Your task to perform on an android device: toggle data saver in the chrome app Image 0: 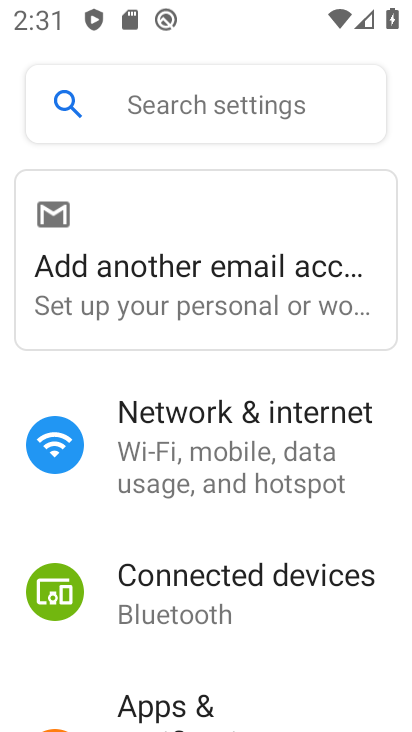
Step 0: press home button
Your task to perform on an android device: toggle data saver in the chrome app Image 1: 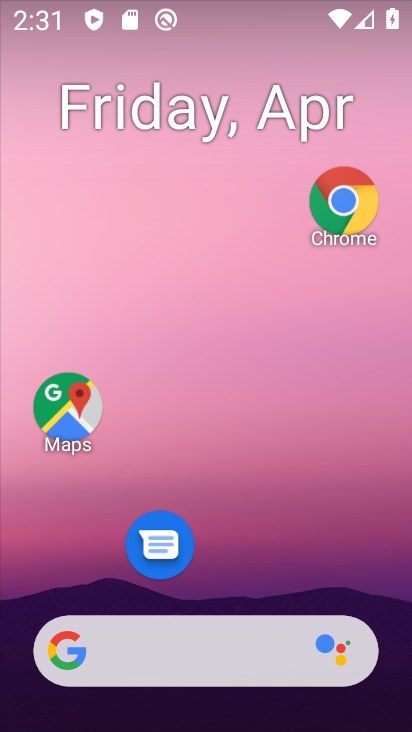
Step 1: click (326, 205)
Your task to perform on an android device: toggle data saver in the chrome app Image 2: 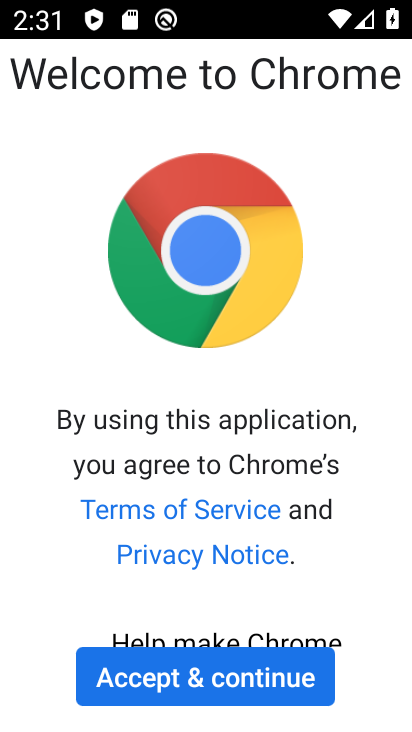
Step 2: click (262, 703)
Your task to perform on an android device: toggle data saver in the chrome app Image 3: 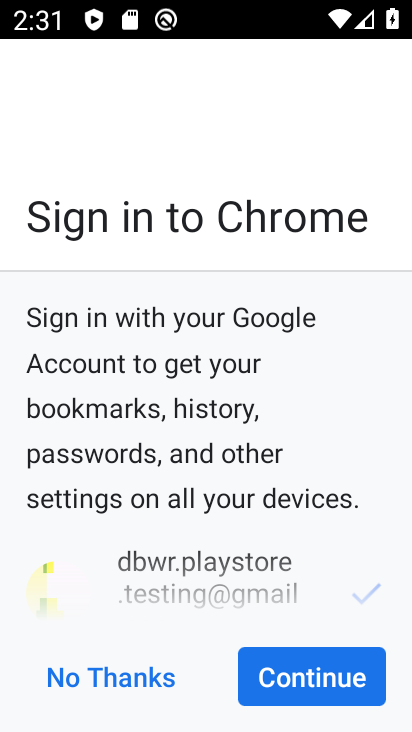
Step 3: click (264, 680)
Your task to perform on an android device: toggle data saver in the chrome app Image 4: 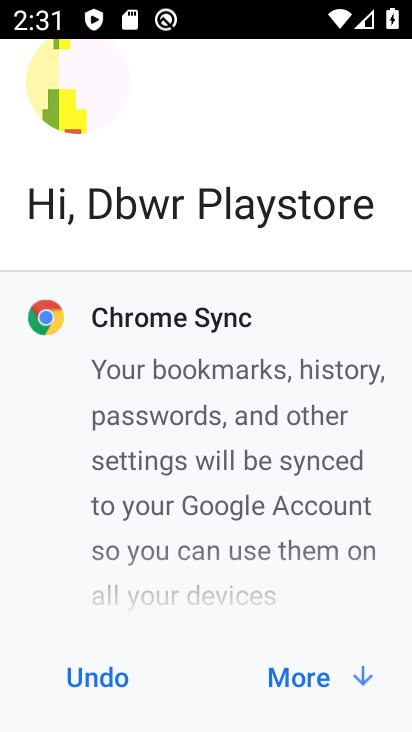
Step 4: click (274, 672)
Your task to perform on an android device: toggle data saver in the chrome app Image 5: 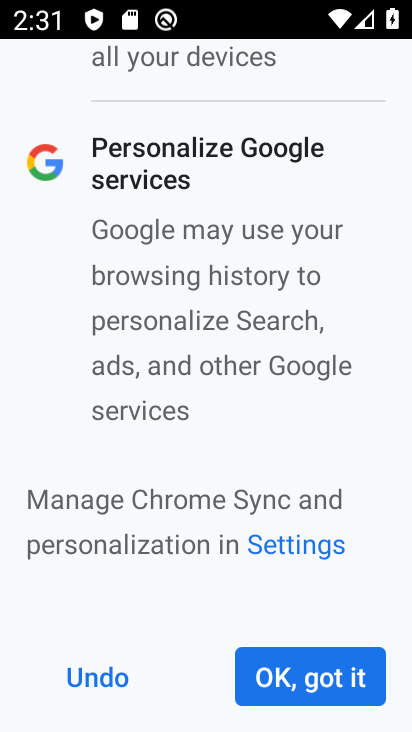
Step 5: click (281, 668)
Your task to perform on an android device: toggle data saver in the chrome app Image 6: 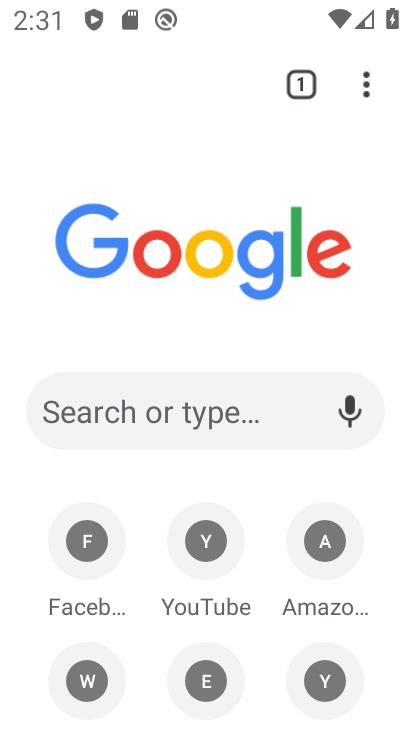
Step 6: click (369, 97)
Your task to perform on an android device: toggle data saver in the chrome app Image 7: 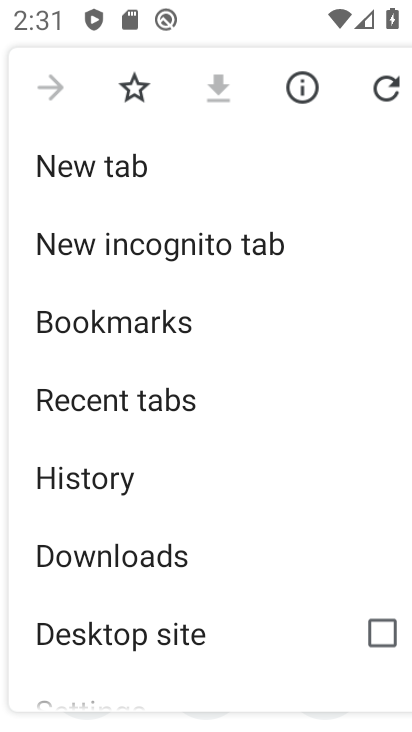
Step 7: drag from (123, 449) to (201, 121)
Your task to perform on an android device: toggle data saver in the chrome app Image 8: 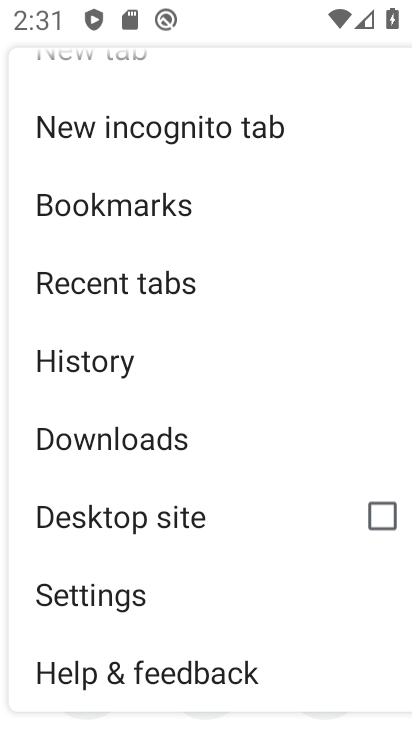
Step 8: click (94, 599)
Your task to perform on an android device: toggle data saver in the chrome app Image 9: 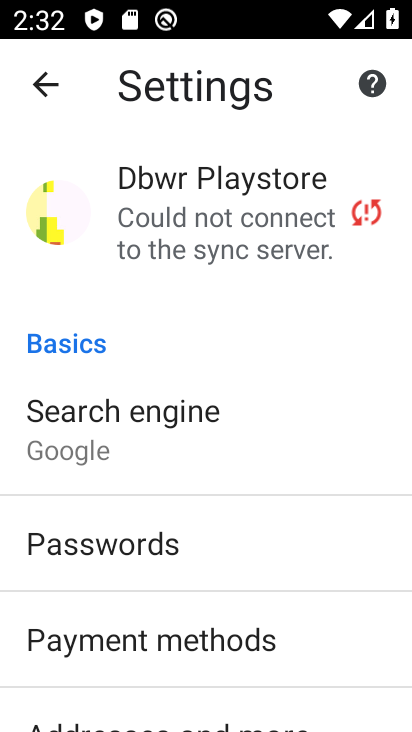
Step 9: drag from (102, 592) to (219, 135)
Your task to perform on an android device: toggle data saver in the chrome app Image 10: 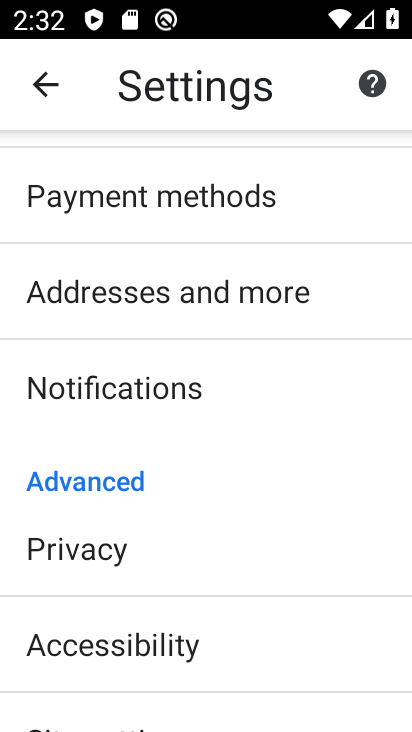
Step 10: drag from (130, 543) to (253, 77)
Your task to perform on an android device: toggle data saver in the chrome app Image 11: 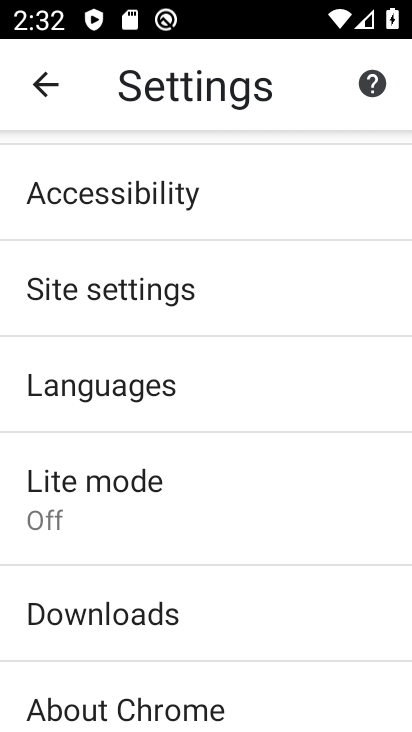
Step 11: click (104, 480)
Your task to perform on an android device: toggle data saver in the chrome app Image 12: 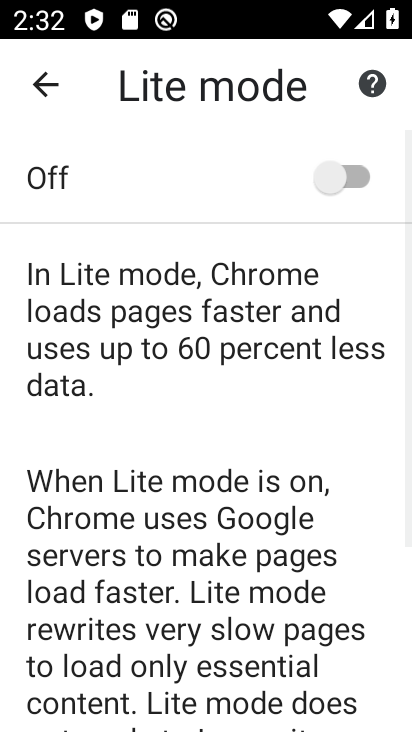
Step 12: click (357, 180)
Your task to perform on an android device: toggle data saver in the chrome app Image 13: 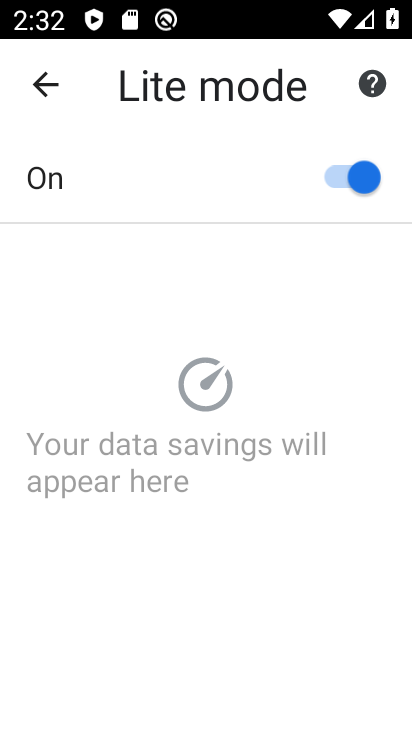
Step 13: task complete